Your task to perform on an android device: turn on improve location accuracy Image 0: 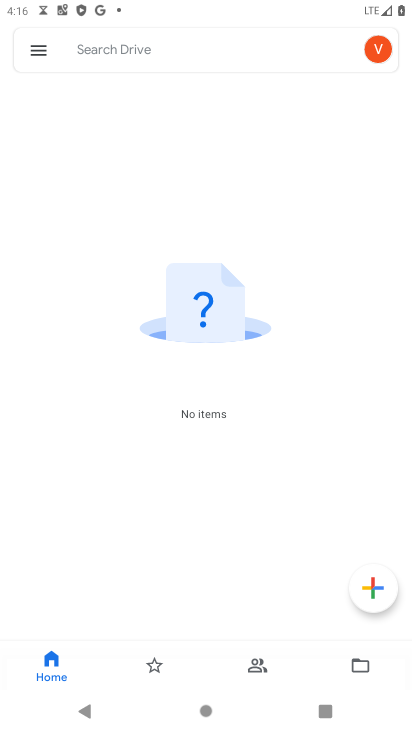
Step 0: press home button
Your task to perform on an android device: turn on improve location accuracy Image 1: 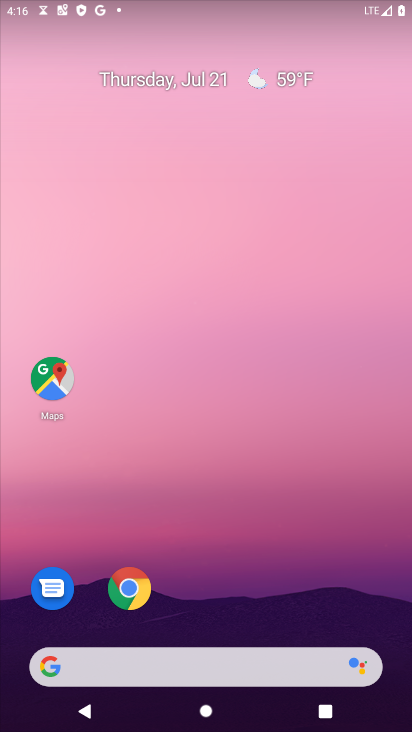
Step 1: drag from (237, 724) to (228, 79)
Your task to perform on an android device: turn on improve location accuracy Image 2: 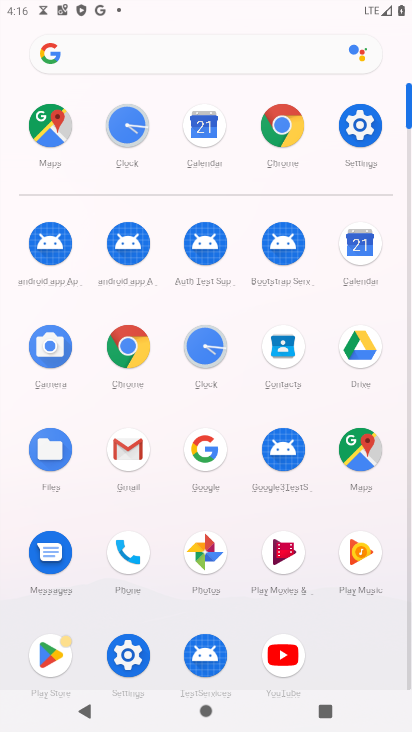
Step 2: click (369, 128)
Your task to perform on an android device: turn on improve location accuracy Image 3: 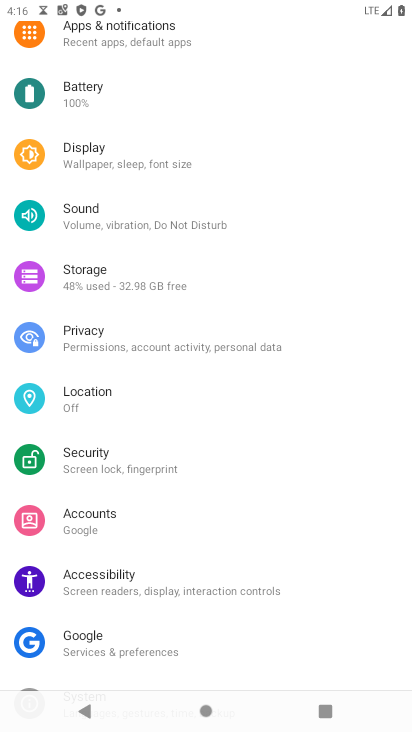
Step 3: click (82, 393)
Your task to perform on an android device: turn on improve location accuracy Image 4: 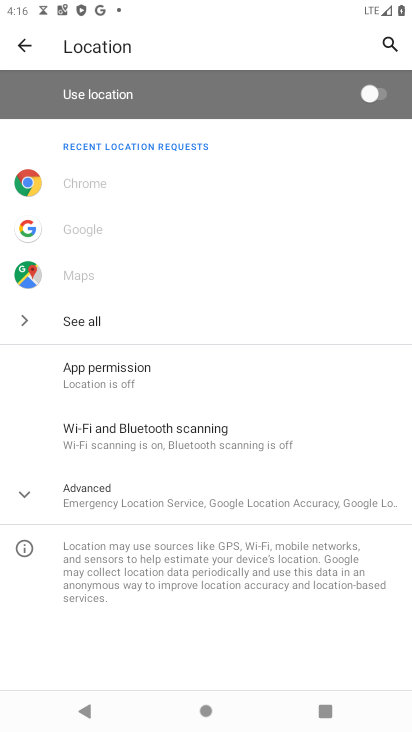
Step 4: click (92, 495)
Your task to perform on an android device: turn on improve location accuracy Image 5: 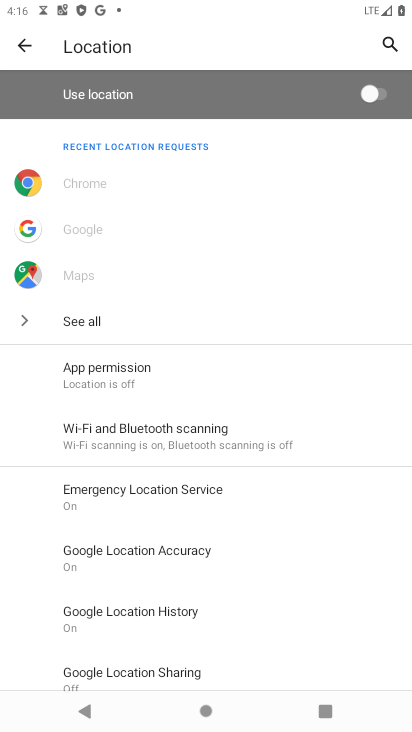
Step 5: click (157, 552)
Your task to perform on an android device: turn on improve location accuracy Image 6: 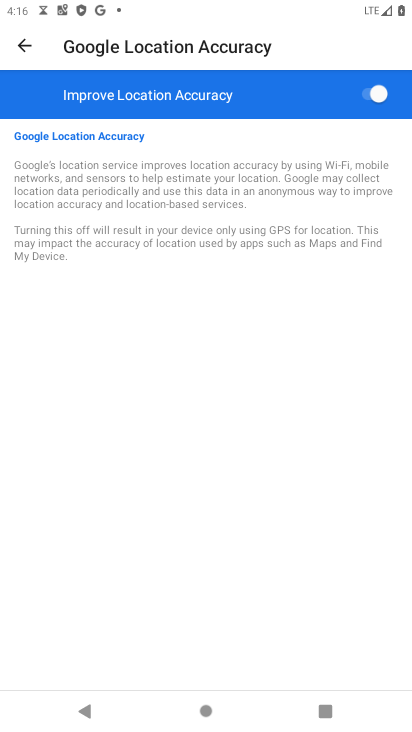
Step 6: task complete